Your task to perform on an android device: turn pop-ups off in chrome Image 0: 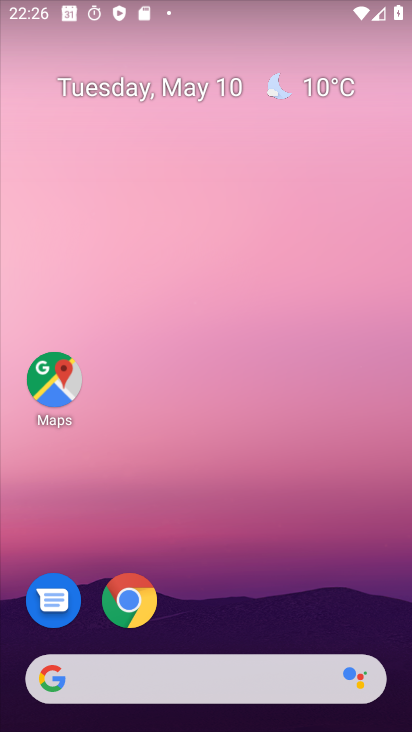
Step 0: drag from (283, 582) to (231, 148)
Your task to perform on an android device: turn pop-ups off in chrome Image 1: 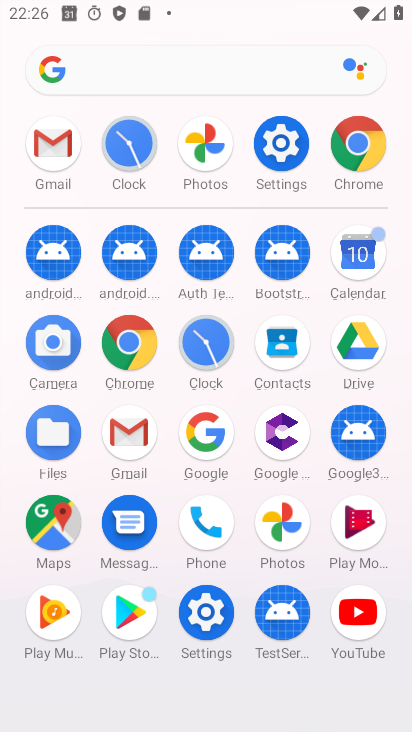
Step 1: click (272, 145)
Your task to perform on an android device: turn pop-ups off in chrome Image 2: 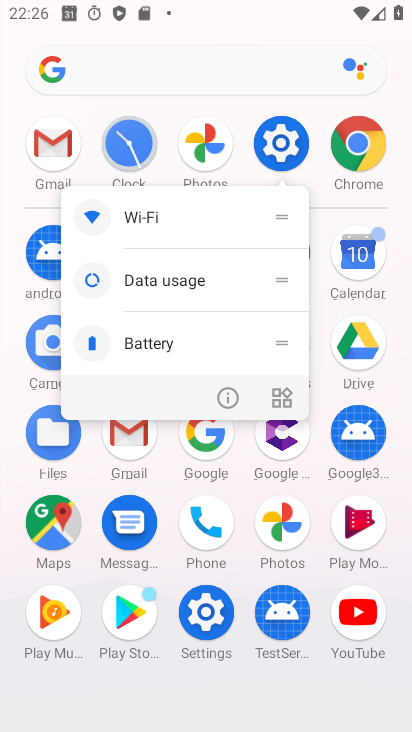
Step 2: click (273, 142)
Your task to perform on an android device: turn pop-ups off in chrome Image 3: 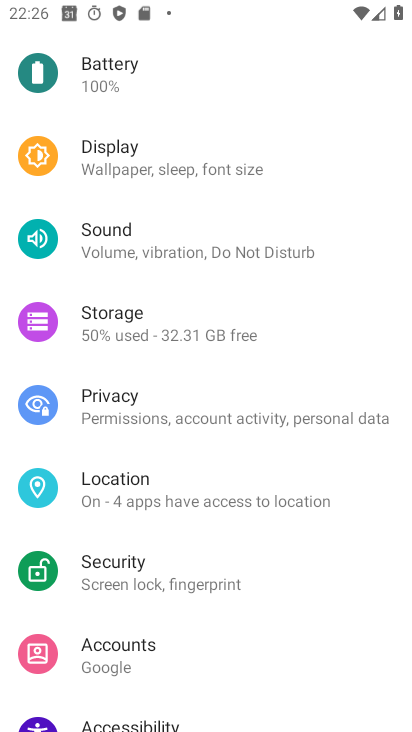
Step 3: drag from (250, 573) to (323, 164)
Your task to perform on an android device: turn pop-ups off in chrome Image 4: 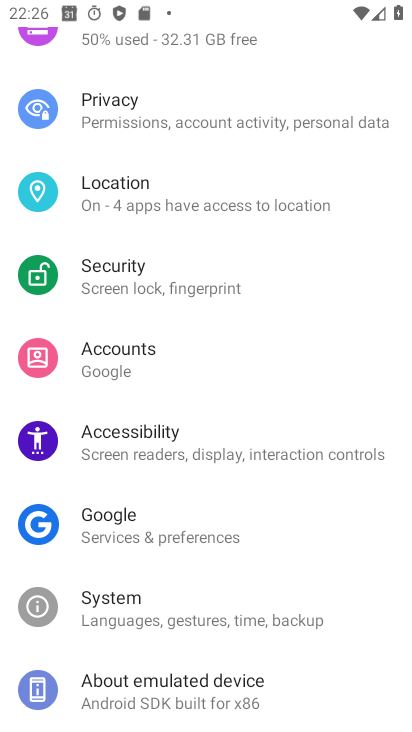
Step 4: drag from (235, 573) to (283, 141)
Your task to perform on an android device: turn pop-ups off in chrome Image 5: 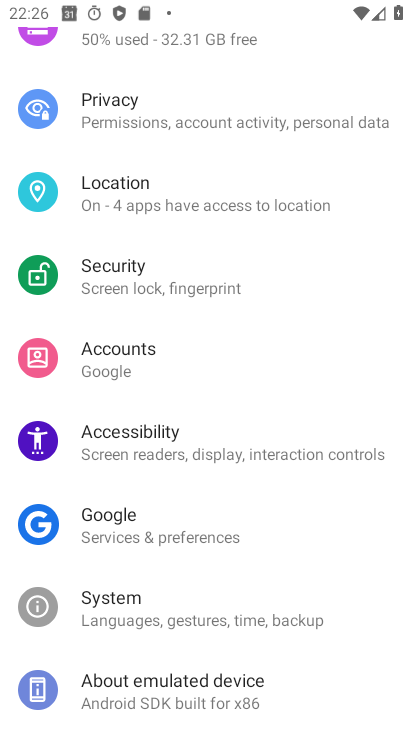
Step 5: drag from (255, 681) to (266, 269)
Your task to perform on an android device: turn pop-ups off in chrome Image 6: 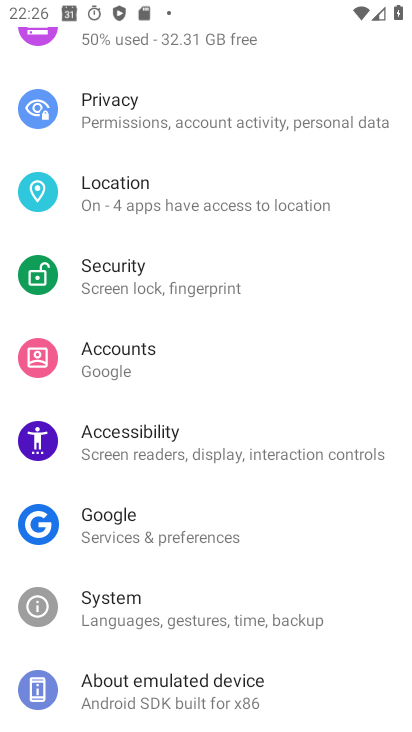
Step 6: drag from (191, 700) to (268, 317)
Your task to perform on an android device: turn pop-ups off in chrome Image 7: 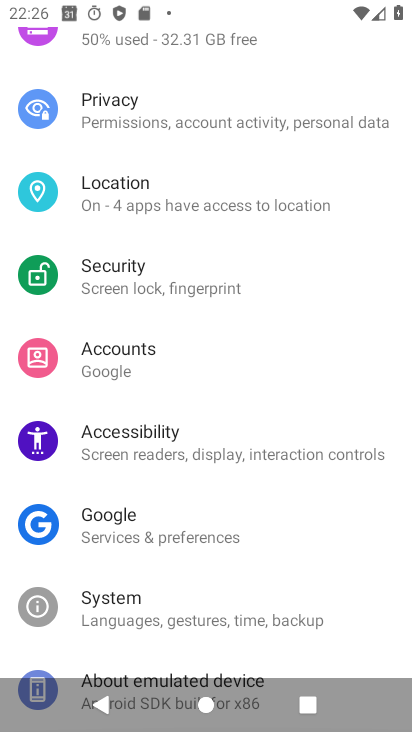
Step 7: drag from (237, 171) to (207, 594)
Your task to perform on an android device: turn pop-ups off in chrome Image 8: 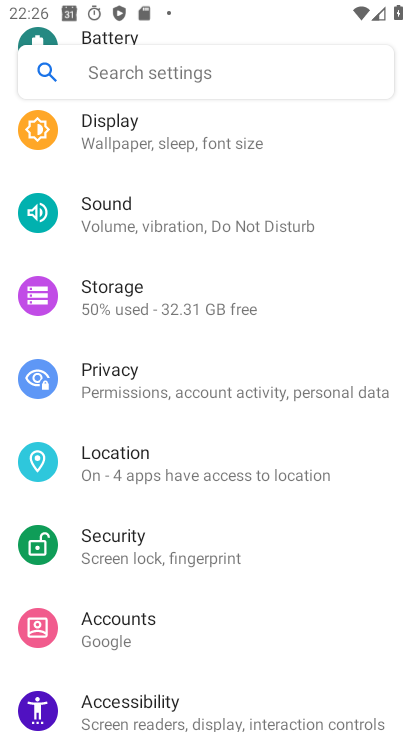
Step 8: press home button
Your task to perform on an android device: turn pop-ups off in chrome Image 9: 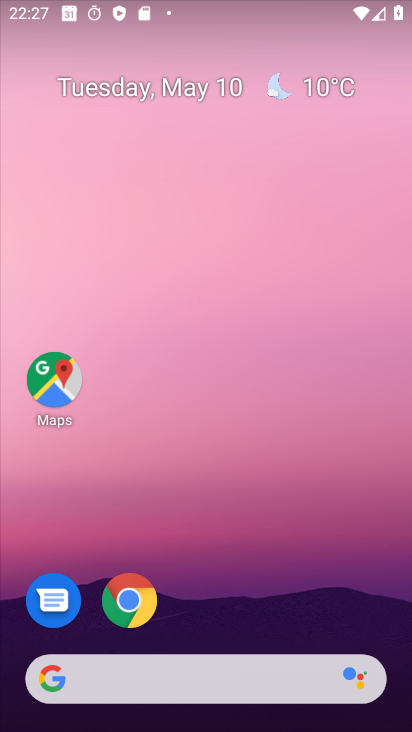
Step 9: drag from (265, 568) to (310, 136)
Your task to perform on an android device: turn pop-ups off in chrome Image 10: 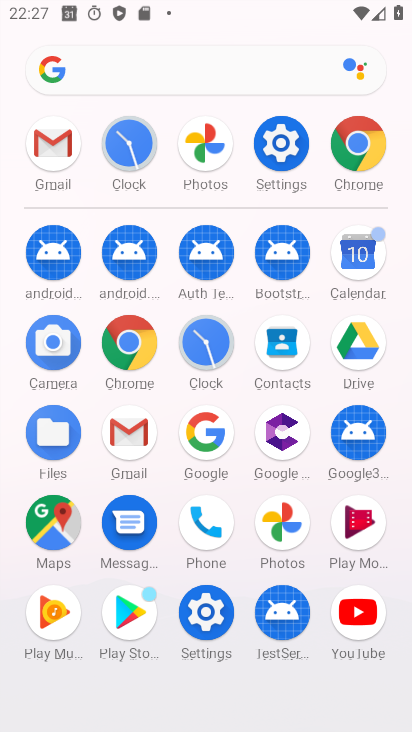
Step 10: click (365, 150)
Your task to perform on an android device: turn pop-ups off in chrome Image 11: 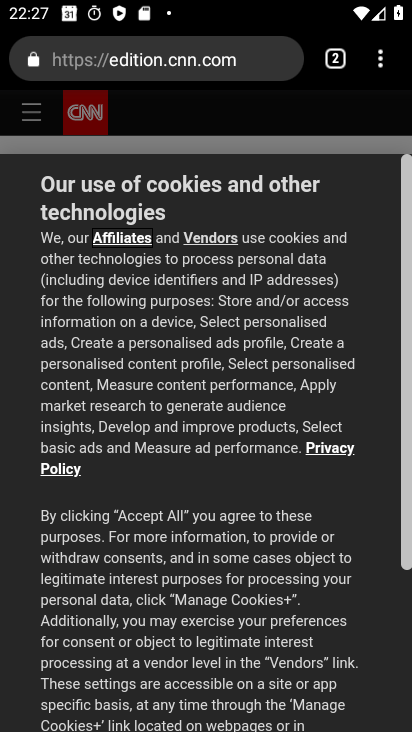
Step 11: drag from (382, 61) to (192, 635)
Your task to perform on an android device: turn pop-ups off in chrome Image 12: 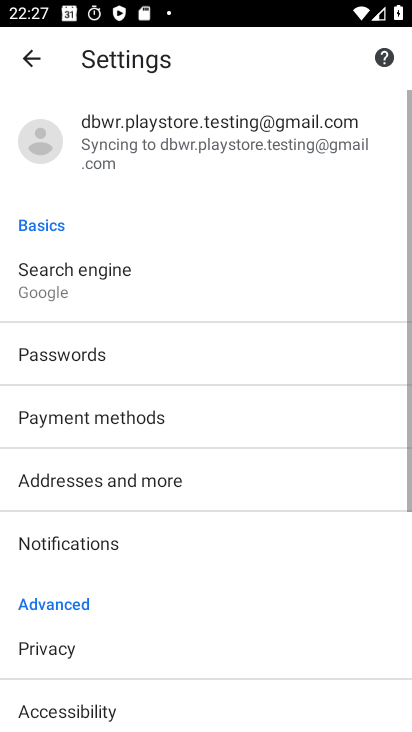
Step 12: drag from (113, 582) to (210, 125)
Your task to perform on an android device: turn pop-ups off in chrome Image 13: 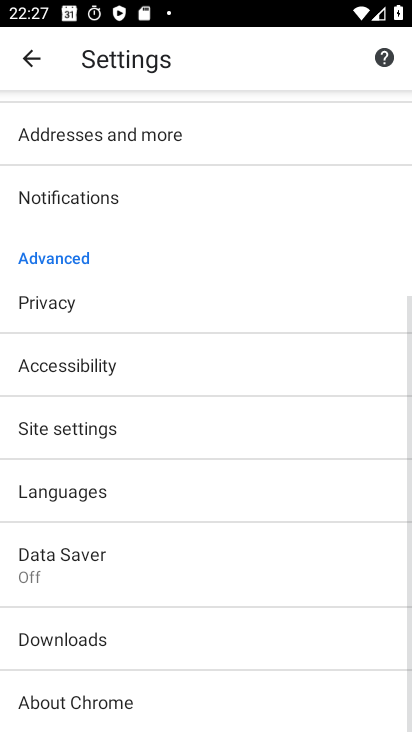
Step 13: click (55, 431)
Your task to perform on an android device: turn pop-ups off in chrome Image 14: 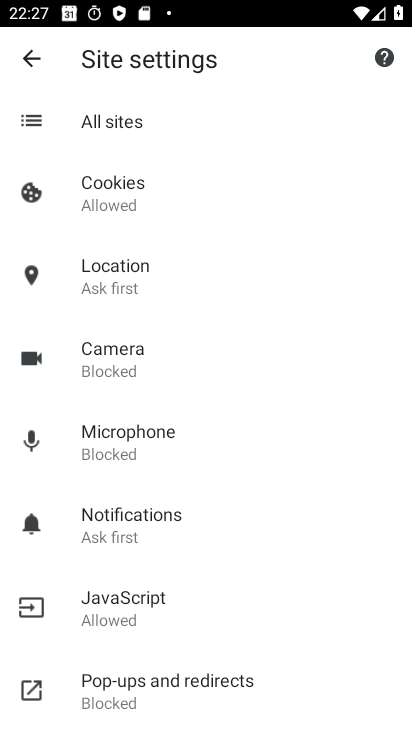
Step 14: drag from (198, 695) to (254, 408)
Your task to perform on an android device: turn pop-ups off in chrome Image 15: 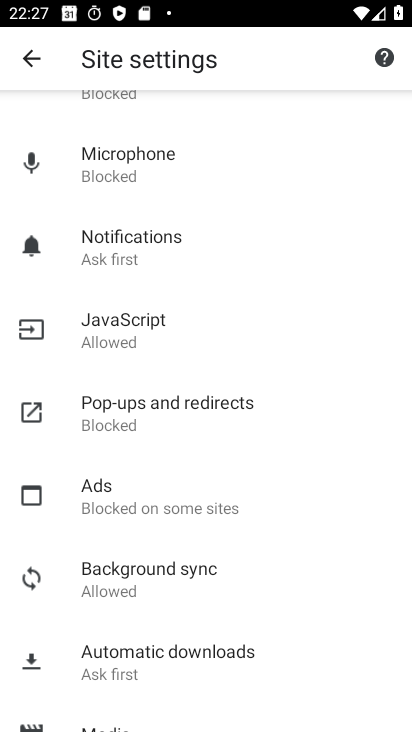
Step 15: click (181, 401)
Your task to perform on an android device: turn pop-ups off in chrome Image 16: 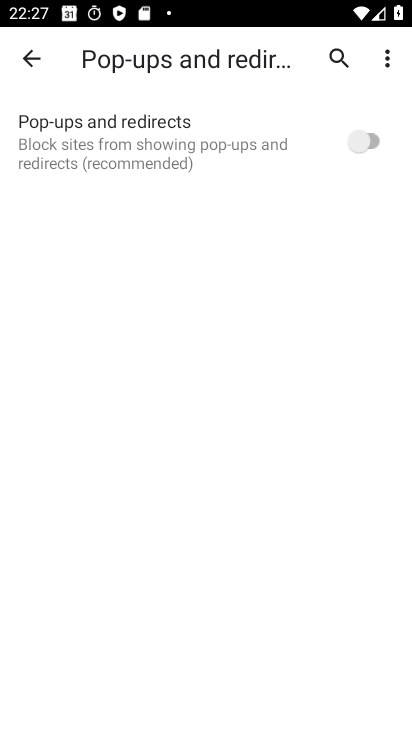
Step 16: task complete